Your task to perform on an android device: Open the calendar and show me this week's events? Image 0: 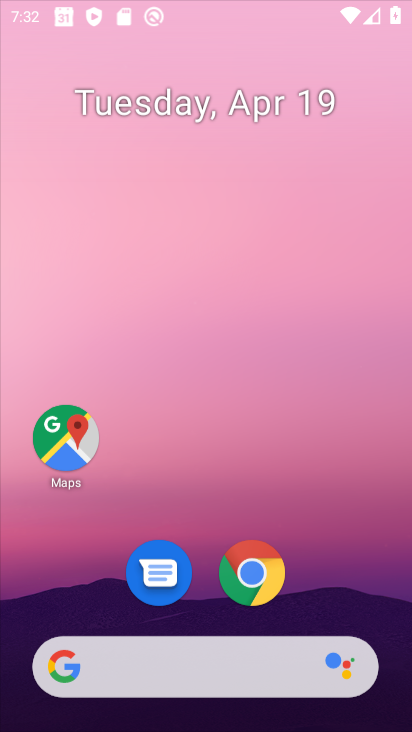
Step 0: drag from (410, 305) to (405, 112)
Your task to perform on an android device: Open the calendar and show me this week's events? Image 1: 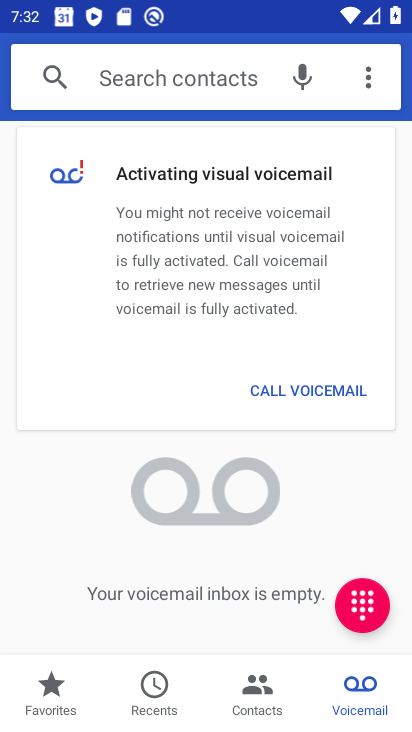
Step 1: press home button
Your task to perform on an android device: Open the calendar and show me this week's events? Image 2: 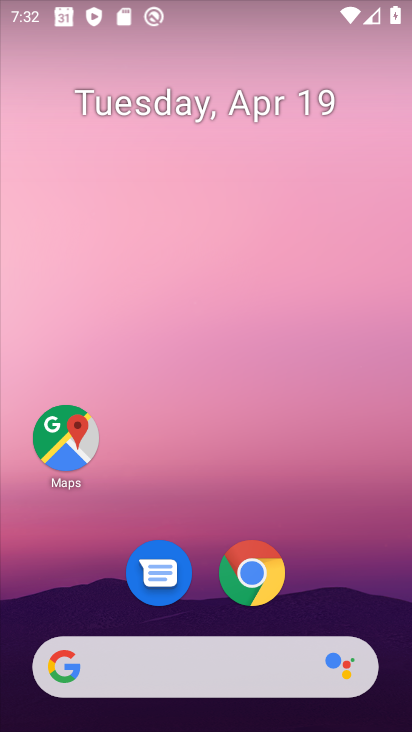
Step 2: drag from (234, 709) to (285, 164)
Your task to perform on an android device: Open the calendar and show me this week's events? Image 3: 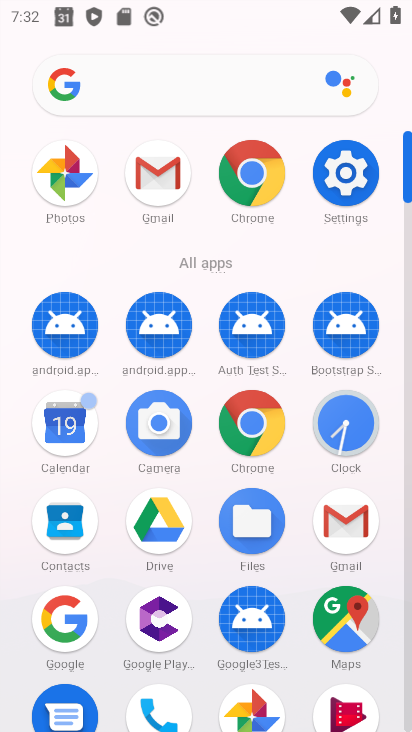
Step 3: click (52, 455)
Your task to perform on an android device: Open the calendar and show me this week's events? Image 4: 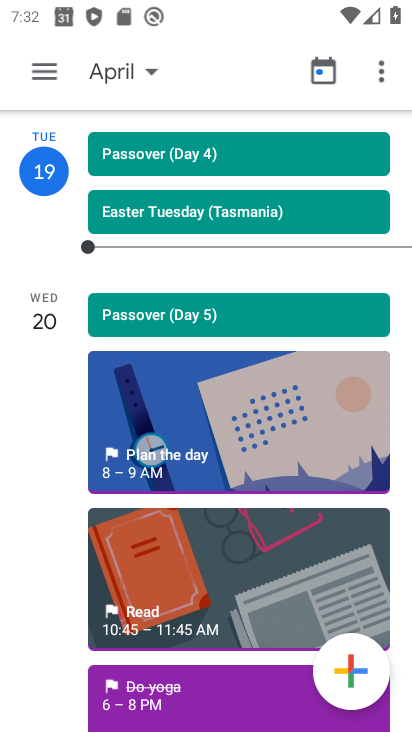
Step 4: click (42, 94)
Your task to perform on an android device: Open the calendar and show me this week's events? Image 5: 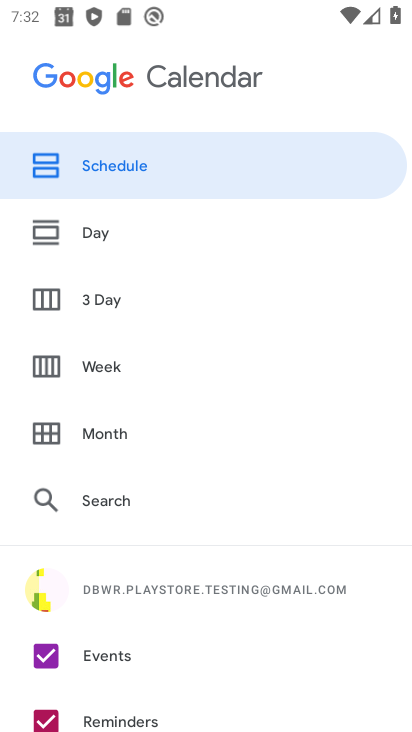
Step 5: click (107, 369)
Your task to perform on an android device: Open the calendar and show me this week's events? Image 6: 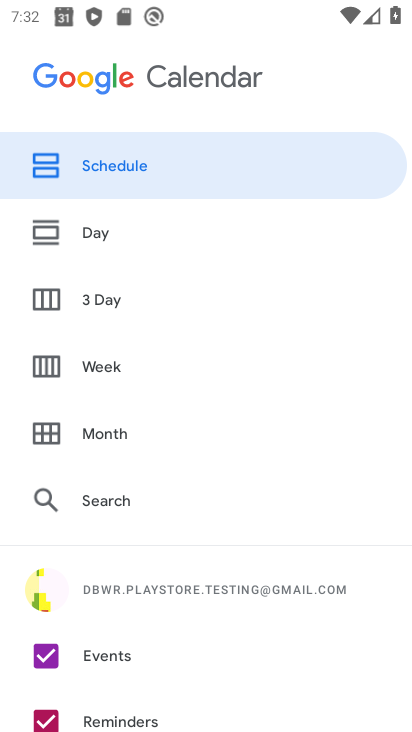
Step 6: click (112, 373)
Your task to perform on an android device: Open the calendar and show me this week's events? Image 7: 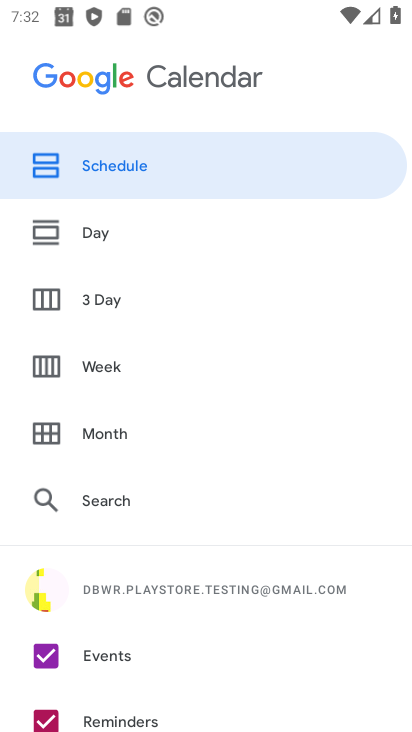
Step 7: click (101, 361)
Your task to perform on an android device: Open the calendar and show me this week's events? Image 8: 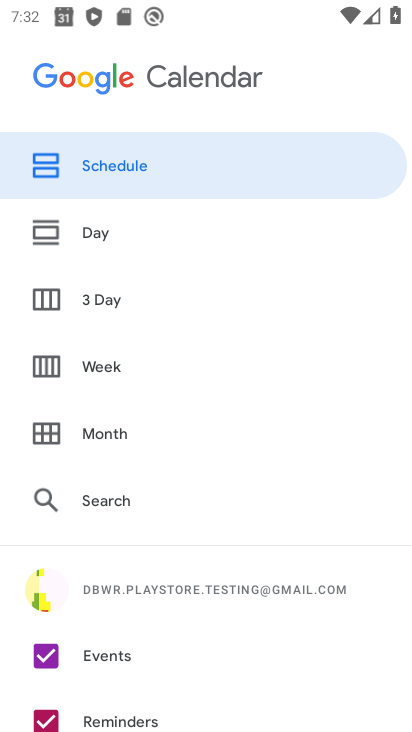
Step 8: click (80, 364)
Your task to perform on an android device: Open the calendar and show me this week's events? Image 9: 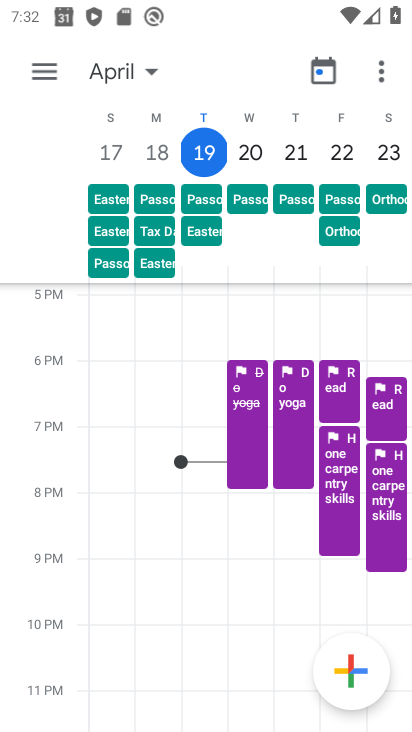
Step 9: task complete